Your task to perform on an android device: Open Youtube and go to "Your channel" Image 0: 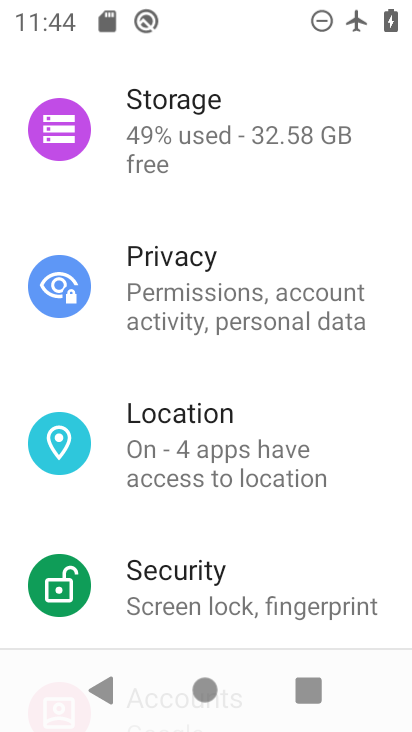
Step 0: press home button
Your task to perform on an android device: Open Youtube and go to "Your channel" Image 1: 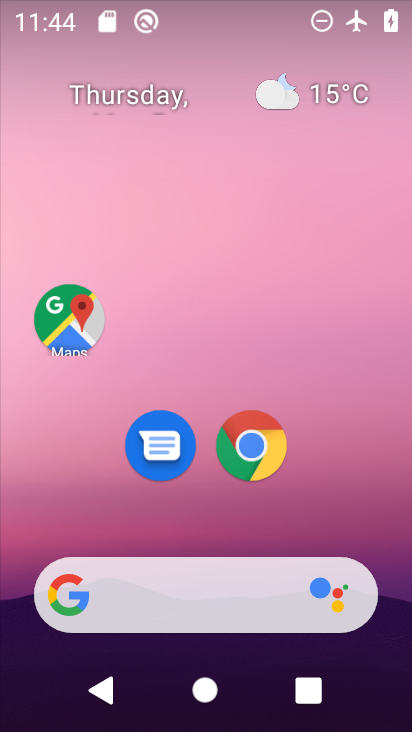
Step 1: drag from (200, 385) to (175, 29)
Your task to perform on an android device: Open Youtube and go to "Your channel" Image 2: 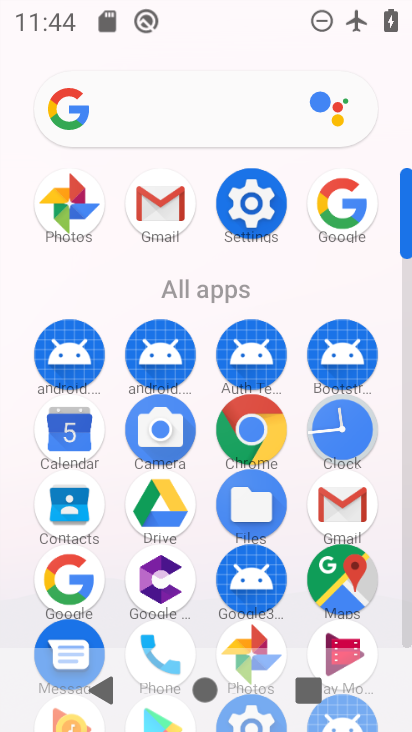
Step 2: drag from (197, 539) to (197, 119)
Your task to perform on an android device: Open Youtube and go to "Your channel" Image 3: 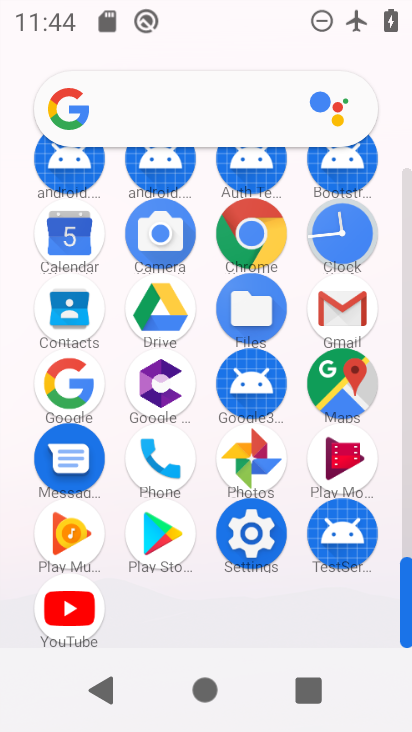
Step 3: click (64, 615)
Your task to perform on an android device: Open Youtube and go to "Your channel" Image 4: 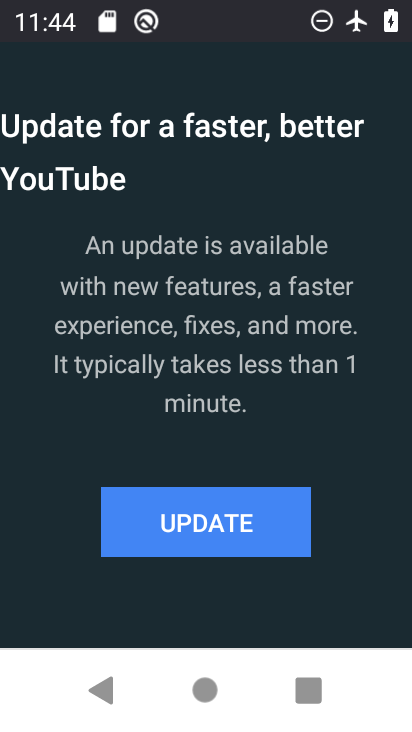
Step 4: click (259, 528)
Your task to perform on an android device: Open Youtube and go to "Your channel" Image 5: 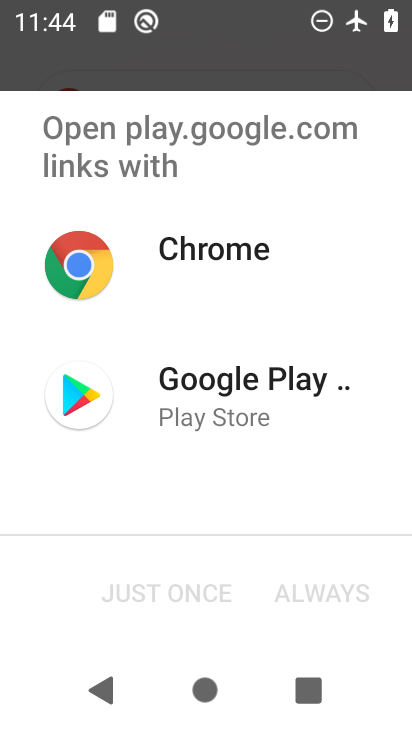
Step 5: click (188, 395)
Your task to perform on an android device: Open Youtube and go to "Your channel" Image 6: 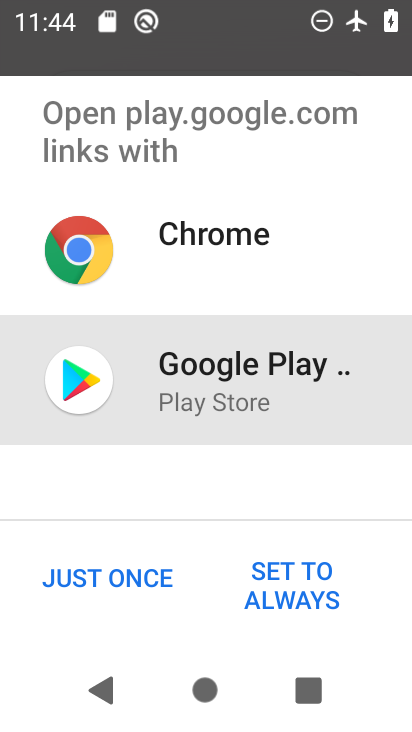
Step 6: click (104, 580)
Your task to perform on an android device: Open Youtube and go to "Your channel" Image 7: 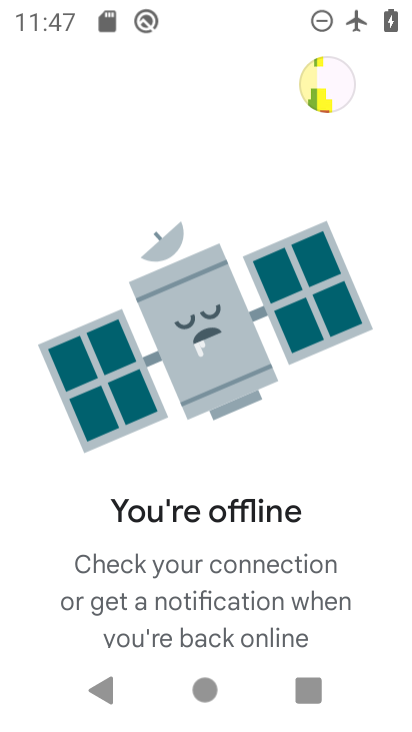
Step 7: task complete